Your task to perform on an android device: toggle priority inbox in the gmail app Image 0: 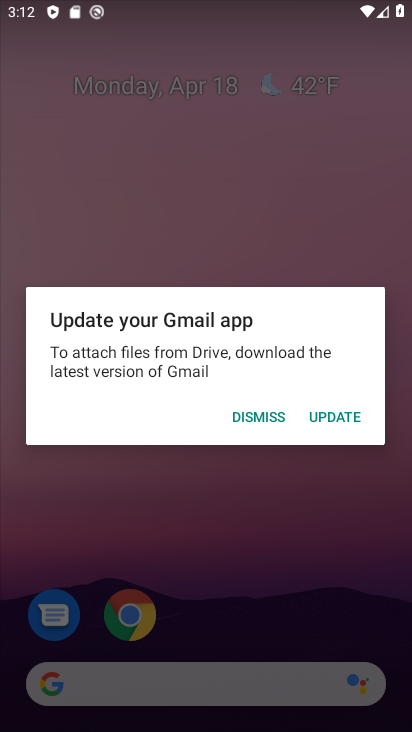
Step 0: press home button
Your task to perform on an android device: toggle priority inbox in the gmail app Image 1: 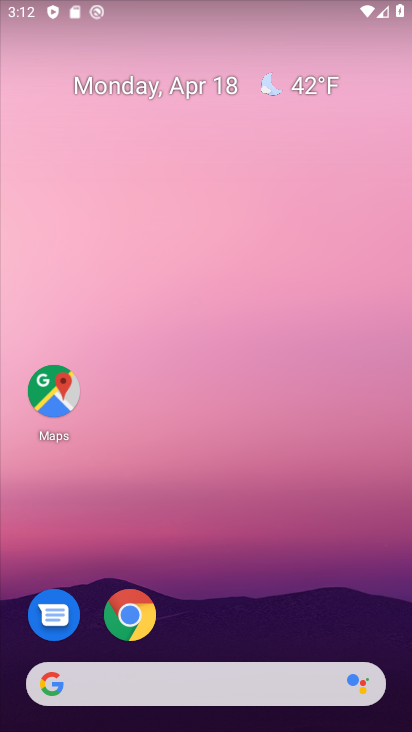
Step 1: drag from (197, 651) to (192, 90)
Your task to perform on an android device: toggle priority inbox in the gmail app Image 2: 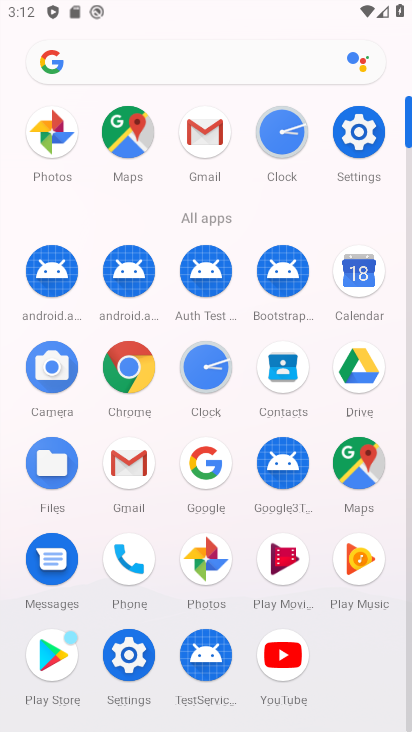
Step 2: click (205, 145)
Your task to perform on an android device: toggle priority inbox in the gmail app Image 3: 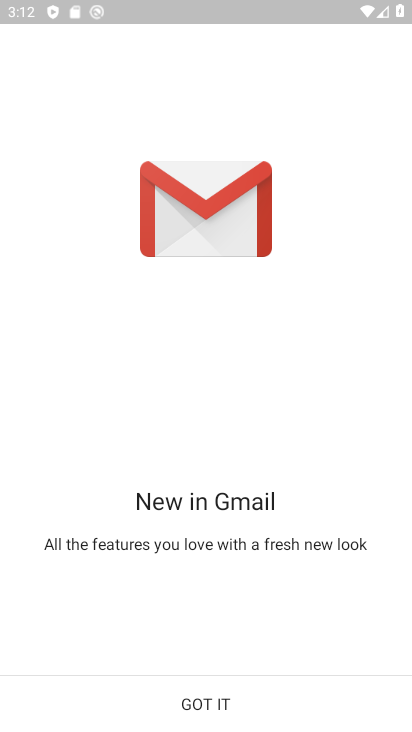
Step 3: click (218, 713)
Your task to perform on an android device: toggle priority inbox in the gmail app Image 4: 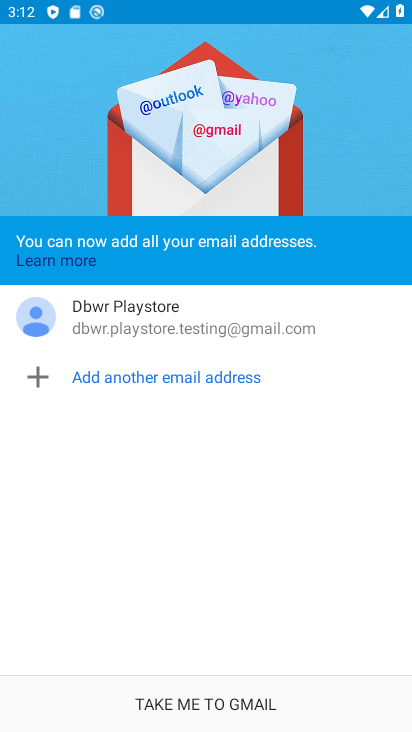
Step 4: click (265, 708)
Your task to perform on an android device: toggle priority inbox in the gmail app Image 5: 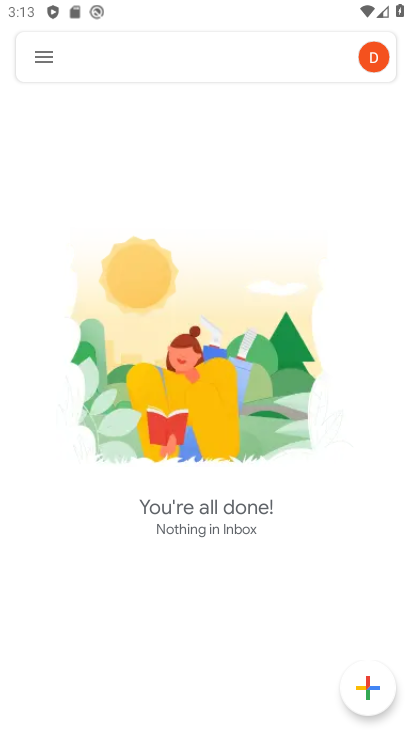
Step 5: click (41, 52)
Your task to perform on an android device: toggle priority inbox in the gmail app Image 6: 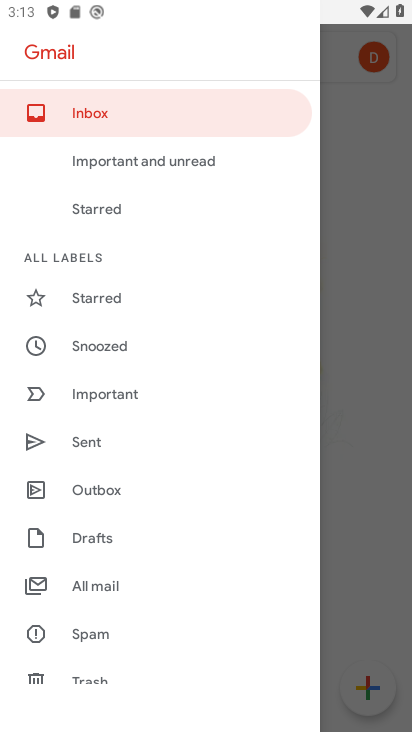
Step 6: drag from (175, 619) to (218, 293)
Your task to perform on an android device: toggle priority inbox in the gmail app Image 7: 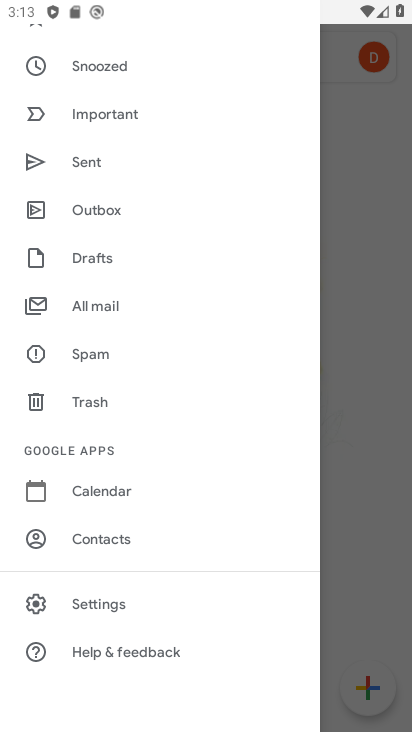
Step 7: click (148, 601)
Your task to perform on an android device: toggle priority inbox in the gmail app Image 8: 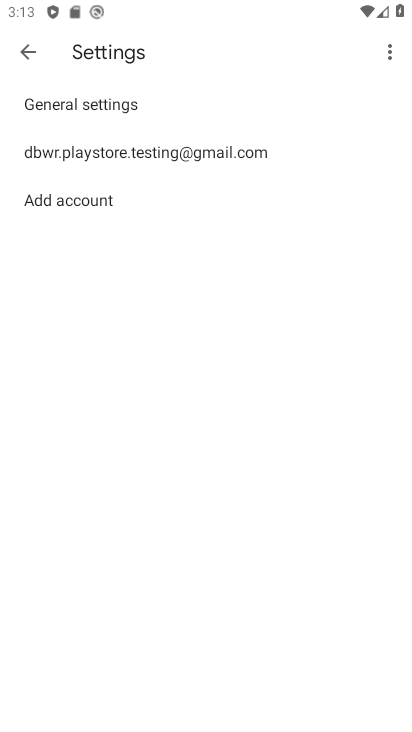
Step 8: click (198, 148)
Your task to perform on an android device: toggle priority inbox in the gmail app Image 9: 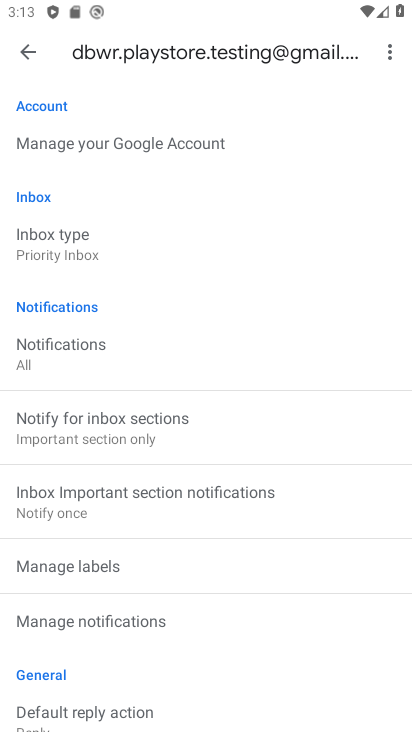
Step 9: click (132, 246)
Your task to perform on an android device: toggle priority inbox in the gmail app Image 10: 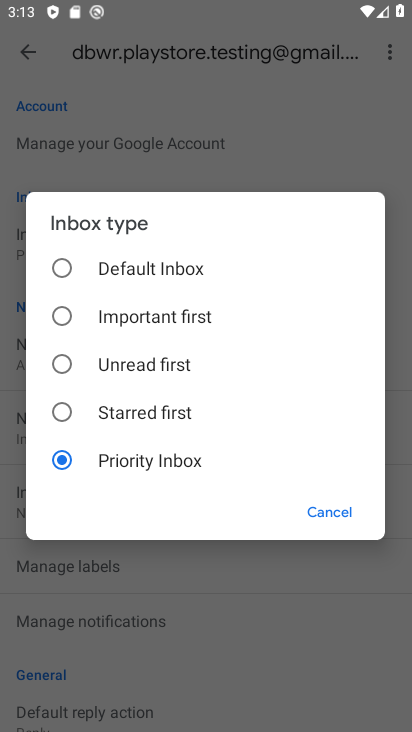
Step 10: task complete